Your task to perform on an android device: Go to internet settings Image 0: 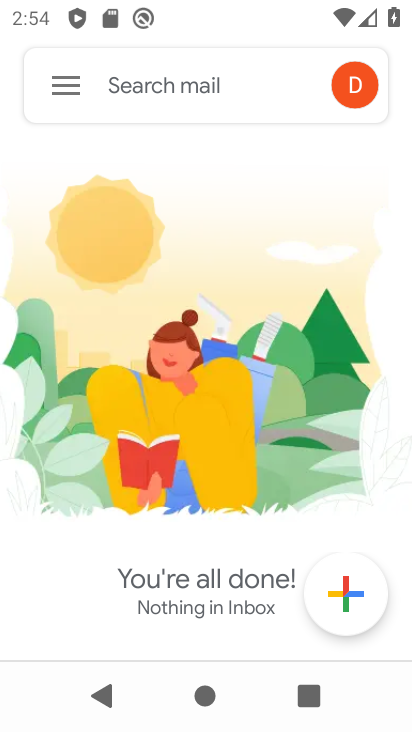
Step 0: press home button
Your task to perform on an android device: Go to internet settings Image 1: 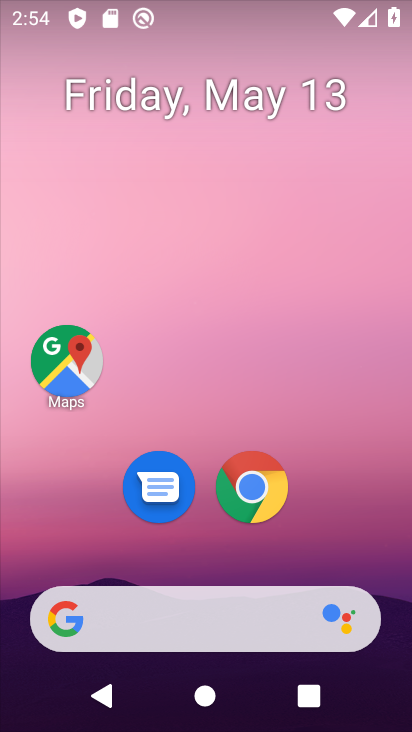
Step 1: drag from (335, 462) to (277, 53)
Your task to perform on an android device: Go to internet settings Image 2: 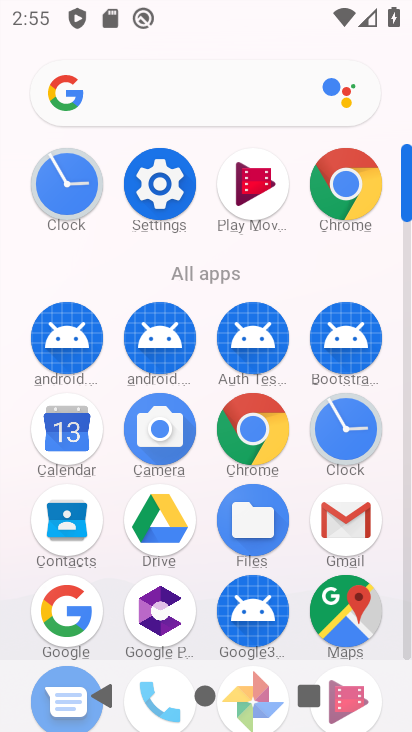
Step 2: click (179, 166)
Your task to perform on an android device: Go to internet settings Image 3: 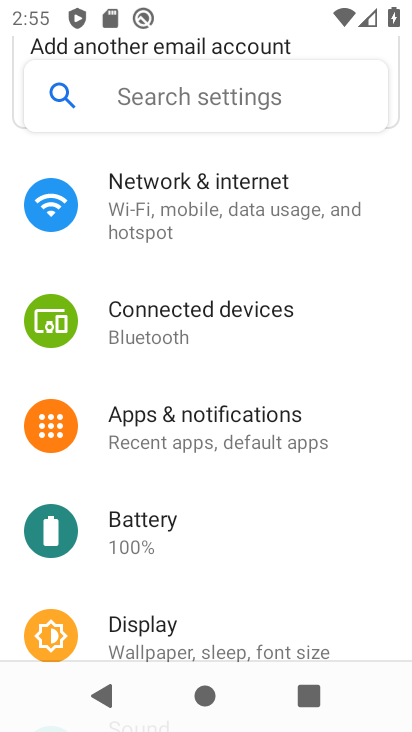
Step 3: click (188, 193)
Your task to perform on an android device: Go to internet settings Image 4: 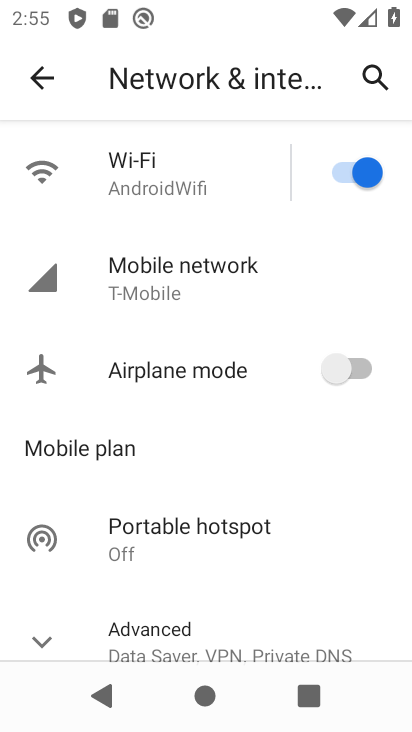
Step 4: click (168, 265)
Your task to perform on an android device: Go to internet settings Image 5: 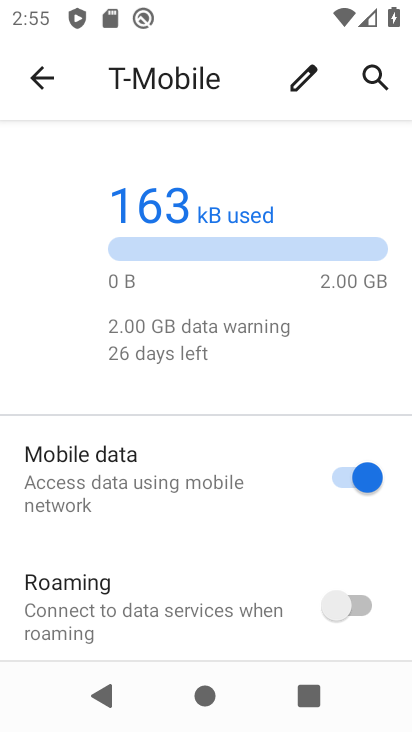
Step 5: task complete